Your task to perform on an android device: Go to calendar. Show me events next week Image 0: 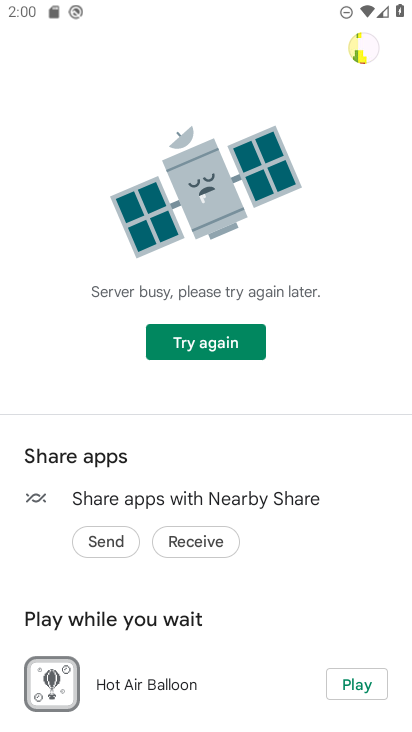
Step 0: press home button
Your task to perform on an android device: Go to calendar. Show me events next week Image 1: 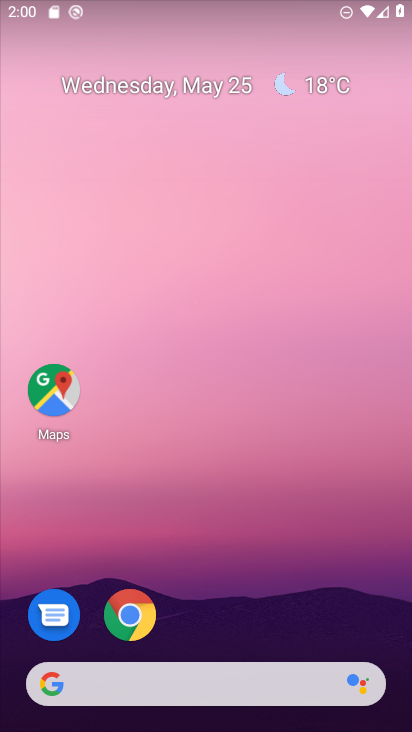
Step 1: drag from (250, 569) to (232, 29)
Your task to perform on an android device: Go to calendar. Show me events next week Image 2: 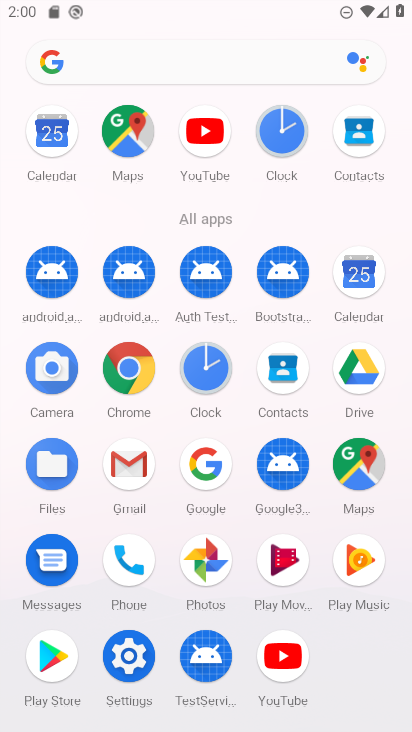
Step 2: click (350, 267)
Your task to perform on an android device: Go to calendar. Show me events next week Image 3: 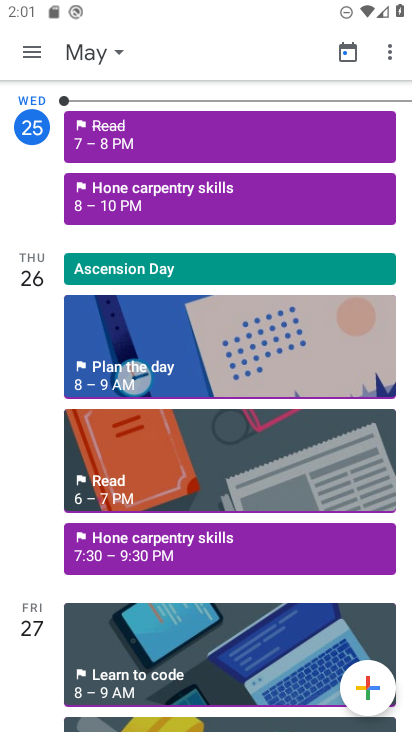
Step 3: click (34, 51)
Your task to perform on an android device: Go to calendar. Show me events next week Image 4: 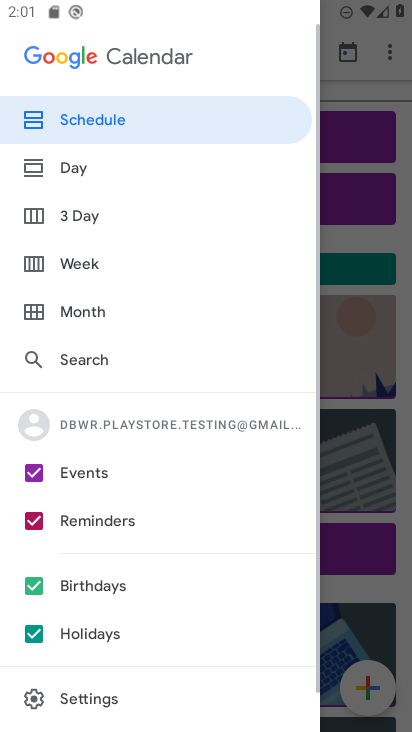
Step 4: click (39, 258)
Your task to perform on an android device: Go to calendar. Show me events next week Image 5: 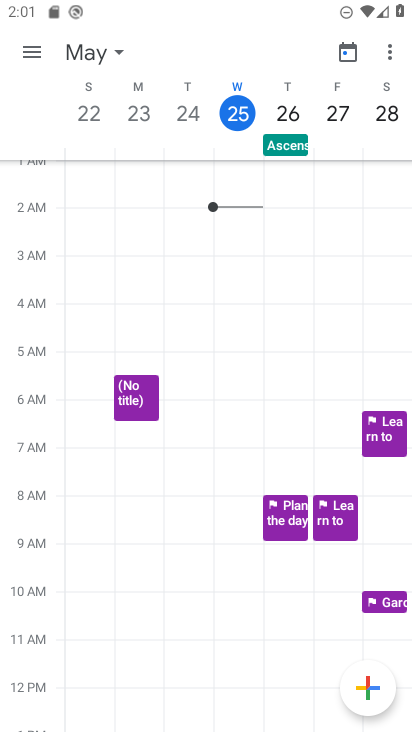
Step 5: task complete